Your task to perform on an android device: Check the weather Image 0: 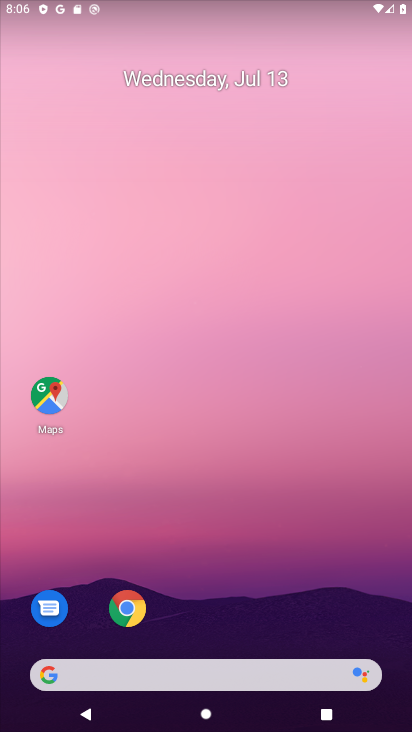
Step 0: drag from (263, 700) to (291, 215)
Your task to perform on an android device: Check the weather Image 1: 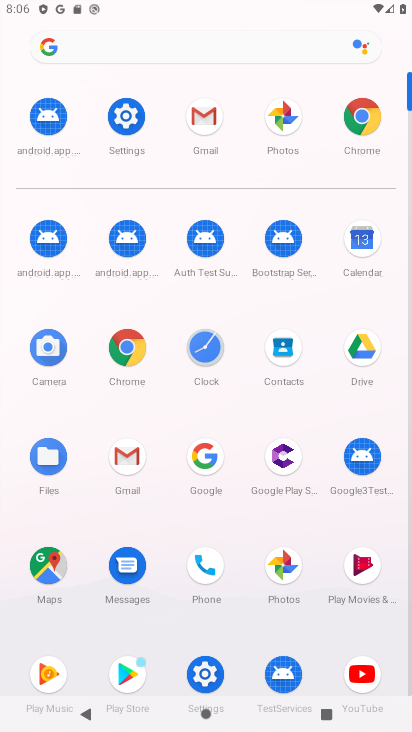
Step 1: click (357, 118)
Your task to perform on an android device: Check the weather Image 2: 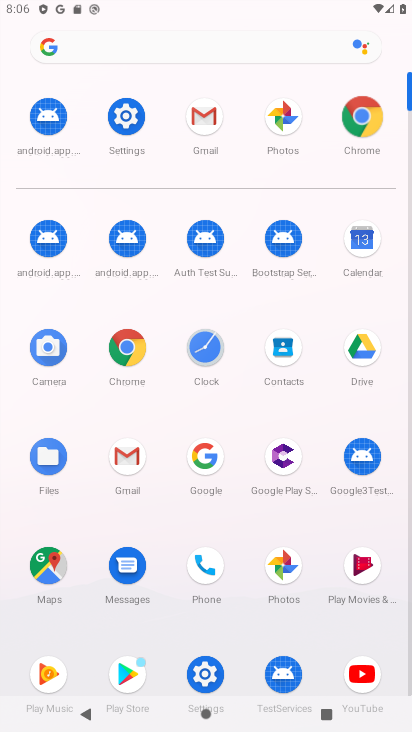
Step 2: click (359, 117)
Your task to perform on an android device: Check the weather Image 3: 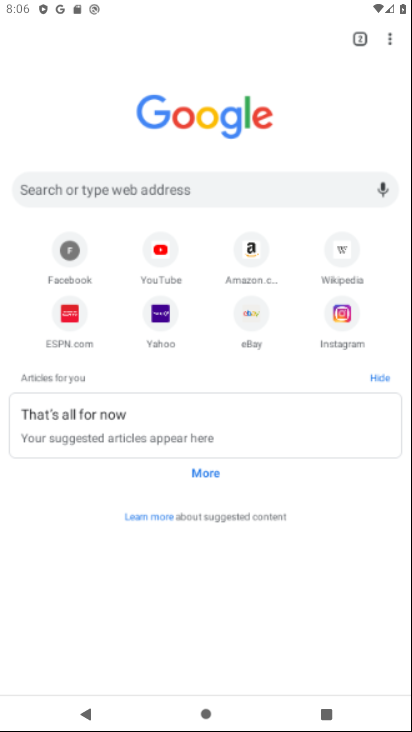
Step 3: click (363, 116)
Your task to perform on an android device: Check the weather Image 4: 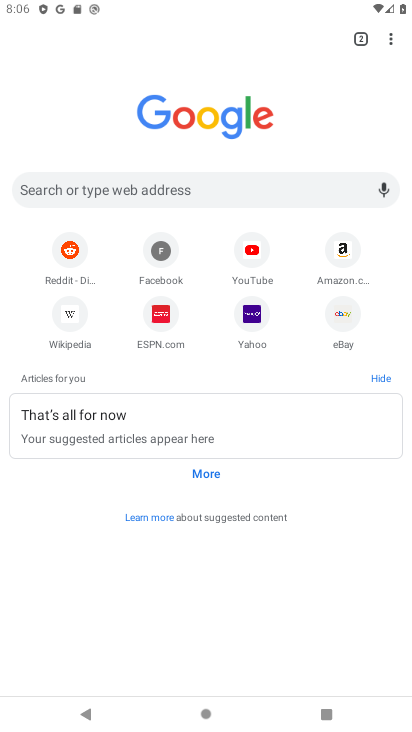
Step 4: click (57, 185)
Your task to perform on an android device: Check the weather Image 5: 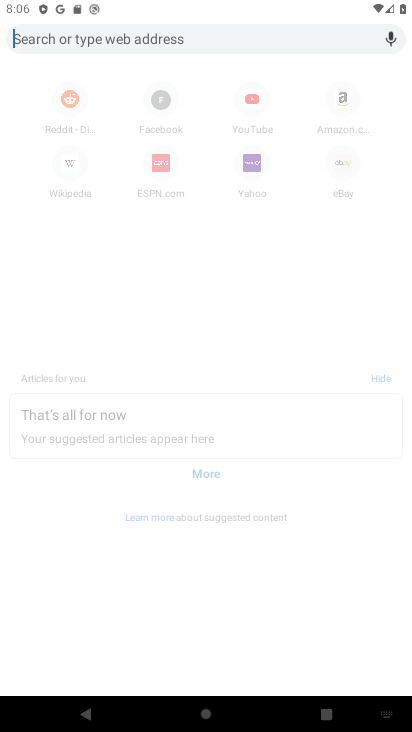
Step 5: type "weather"
Your task to perform on an android device: Check the weather Image 6: 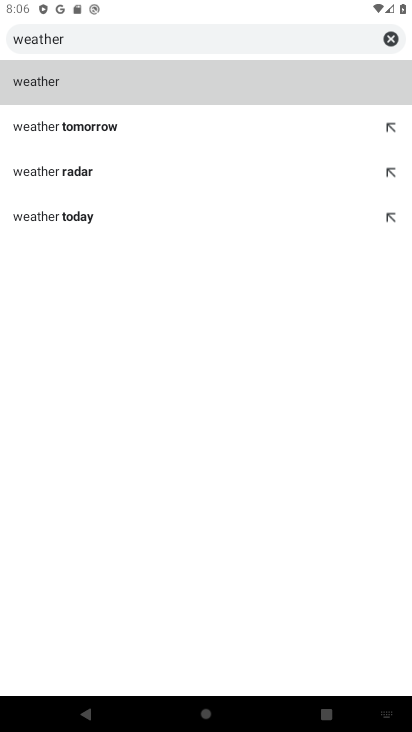
Step 6: click (44, 93)
Your task to perform on an android device: Check the weather Image 7: 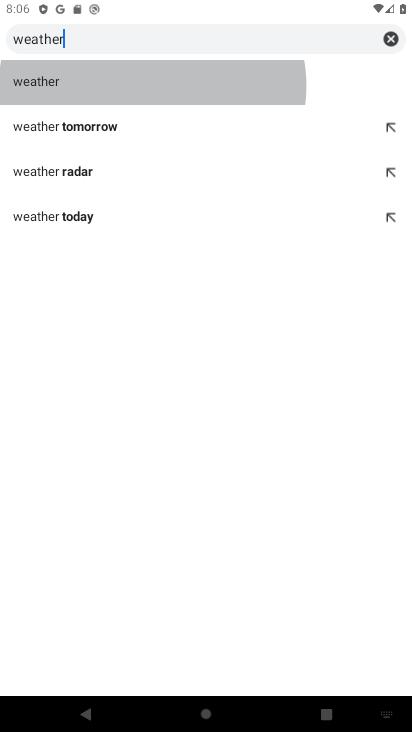
Step 7: click (51, 90)
Your task to perform on an android device: Check the weather Image 8: 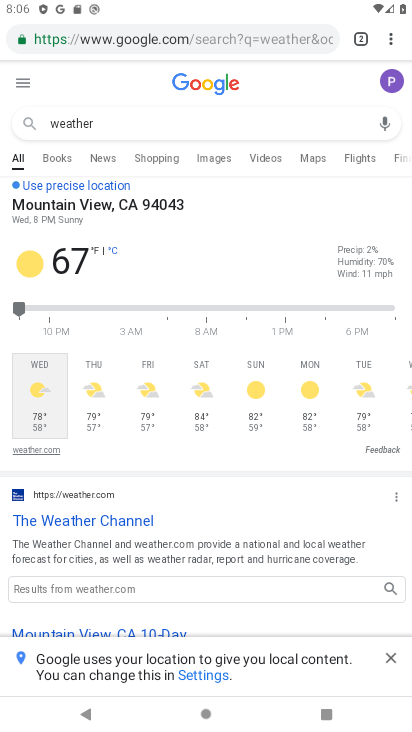
Step 8: task complete